Your task to perform on an android device: star an email in the gmail app Image 0: 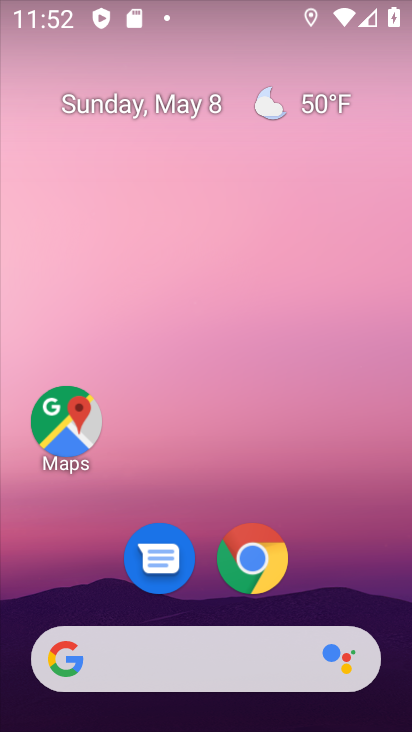
Step 0: drag from (196, 641) to (151, 99)
Your task to perform on an android device: star an email in the gmail app Image 1: 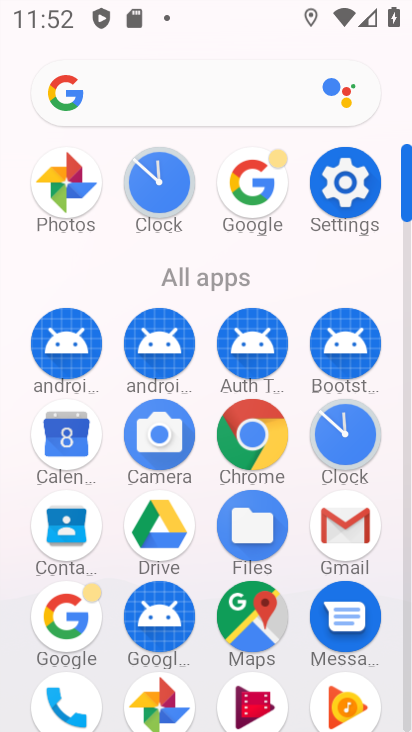
Step 1: click (348, 527)
Your task to perform on an android device: star an email in the gmail app Image 2: 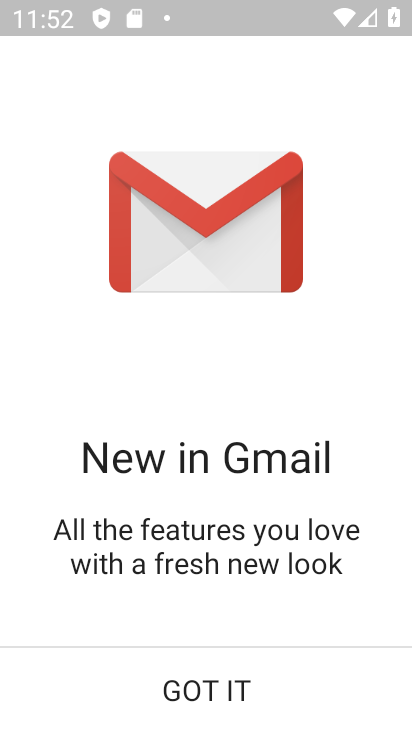
Step 2: click (220, 691)
Your task to perform on an android device: star an email in the gmail app Image 3: 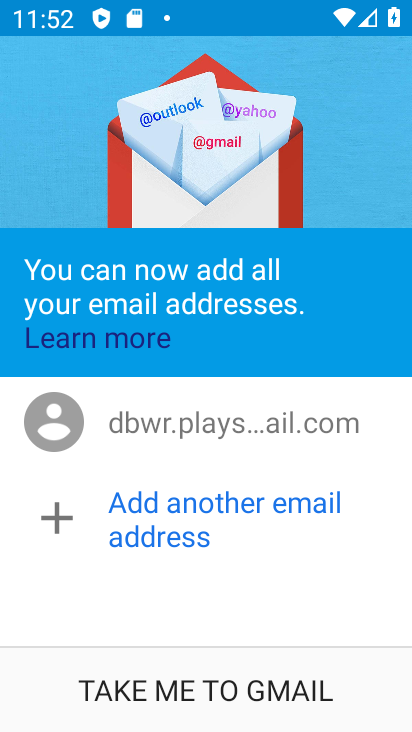
Step 3: click (220, 691)
Your task to perform on an android device: star an email in the gmail app Image 4: 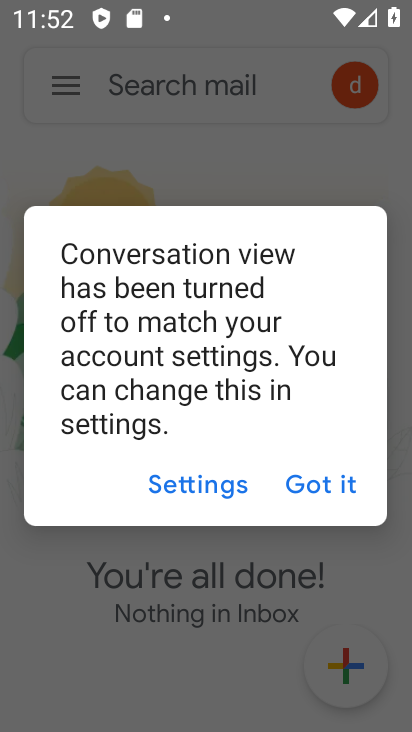
Step 4: click (324, 487)
Your task to perform on an android device: star an email in the gmail app Image 5: 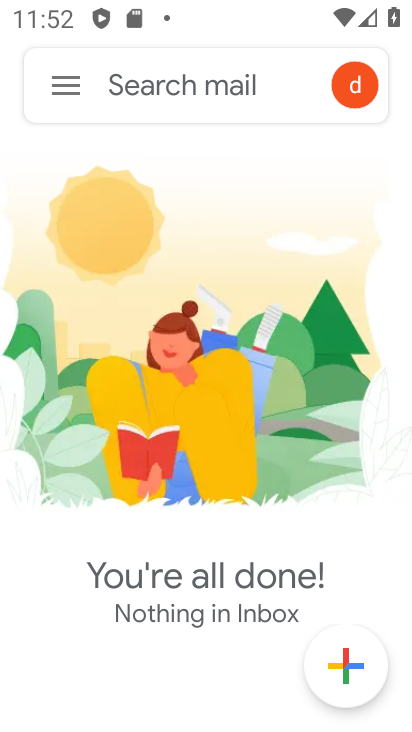
Step 5: click (60, 84)
Your task to perform on an android device: star an email in the gmail app Image 6: 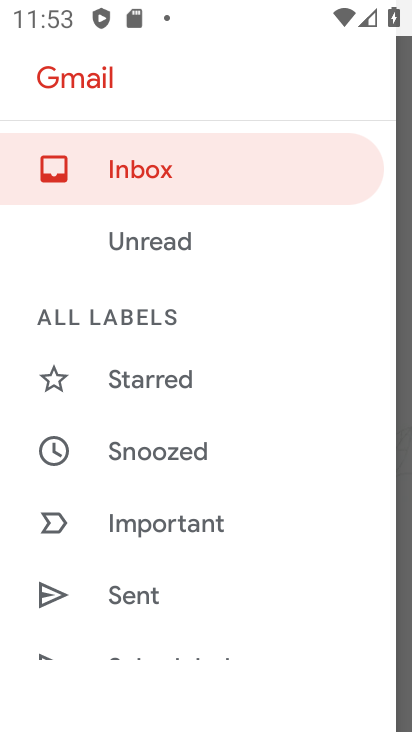
Step 6: drag from (183, 584) to (162, 37)
Your task to perform on an android device: star an email in the gmail app Image 7: 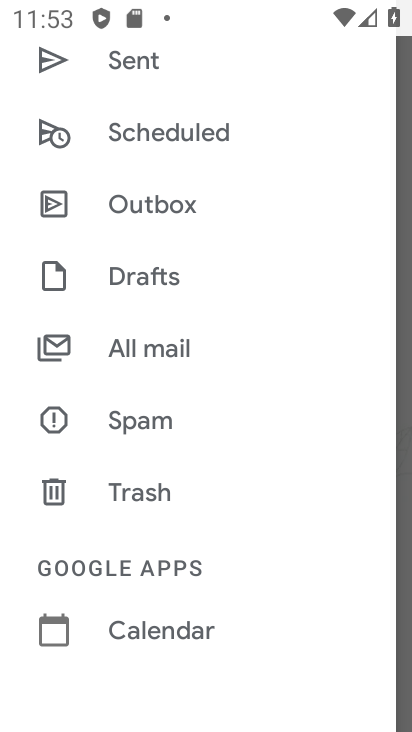
Step 7: click (126, 358)
Your task to perform on an android device: star an email in the gmail app Image 8: 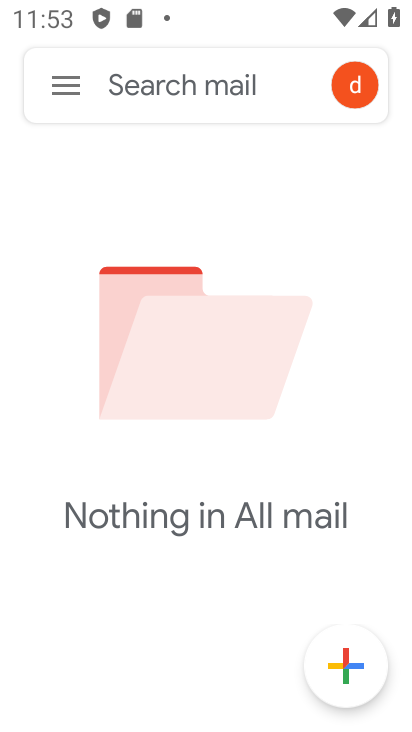
Step 8: task complete